Your task to perform on an android device: turn off smart reply in the gmail app Image 0: 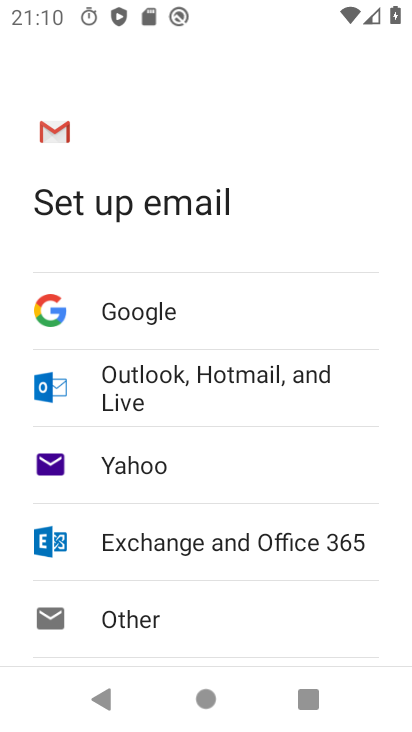
Step 0: press home button
Your task to perform on an android device: turn off smart reply in the gmail app Image 1: 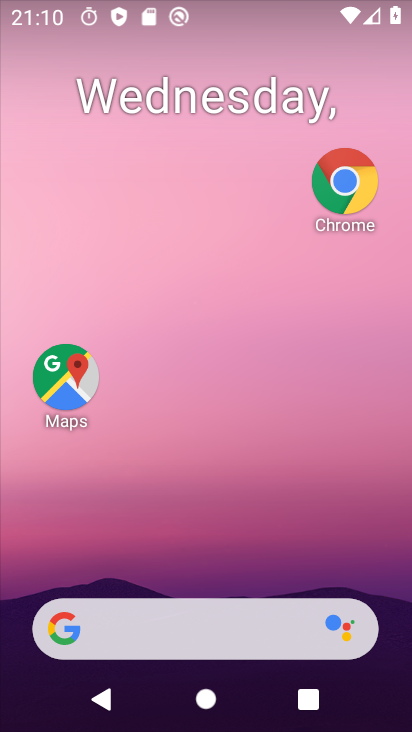
Step 1: drag from (236, 668) to (277, 312)
Your task to perform on an android device: turn off smart reply in the gmail app Image 2: 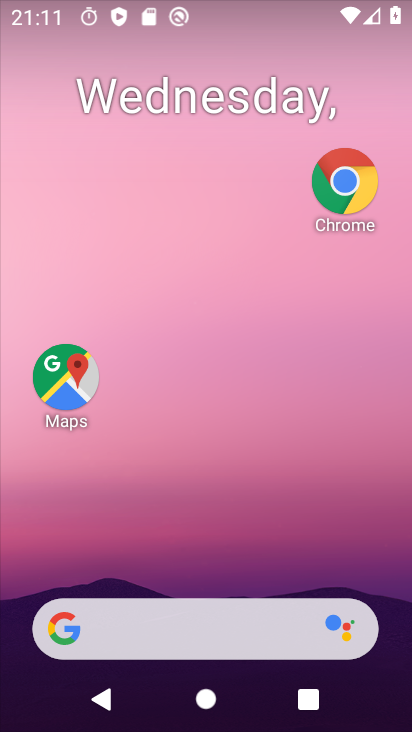
Step 2: drag from (177, 671) to (324, 106)
Your task to perform on an android device: turn off smart reply in the gmail app Image 3: 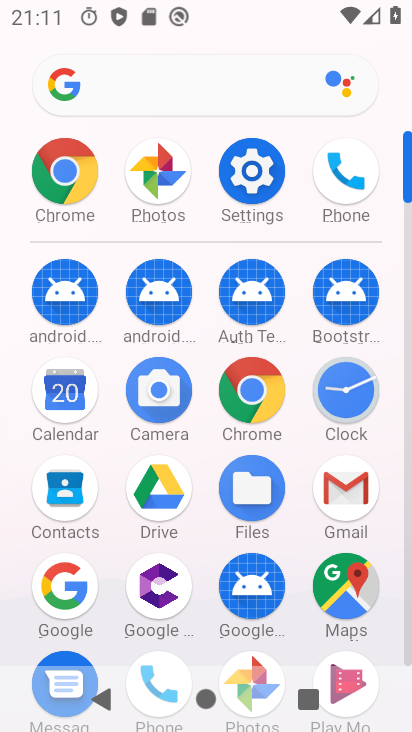
Step 3: click (324, 473)
Your task to perform on an android device: turn off smart reply in the gmail app Image 4: 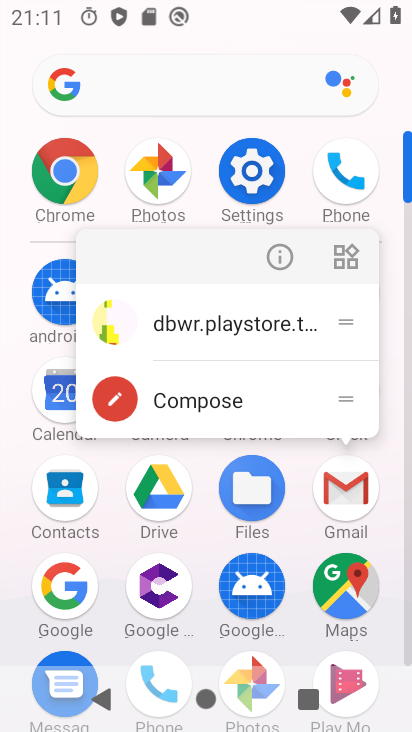
Step 4: click (328, 482)
Your task to perform on an android device: turn off smart reply in the gmail app Image 5: 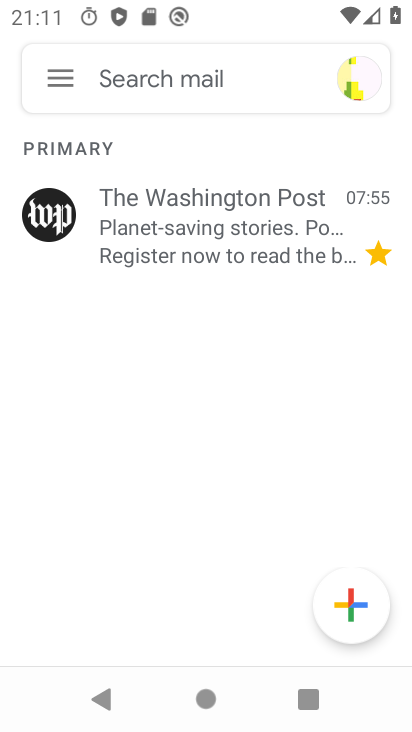
Step 5: click (44, 77)
Your task to perform on an android device: turn off smart reply in the gmail app Image 6: 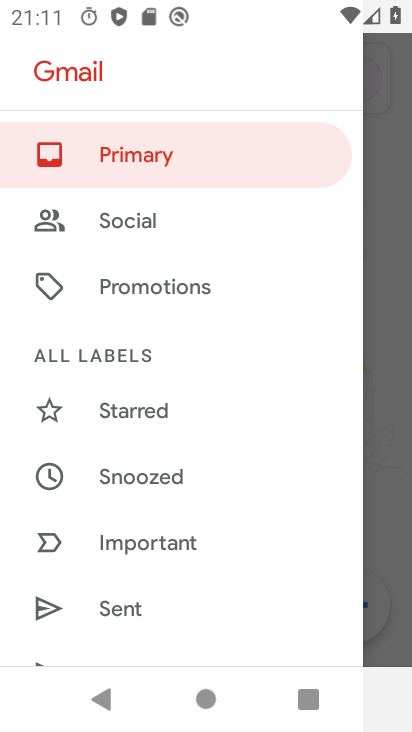
Step 6: drag from (165, 625) to (197, 297)
Your task to perform on an android device: turn off smart reply in the gmail app Image 7: 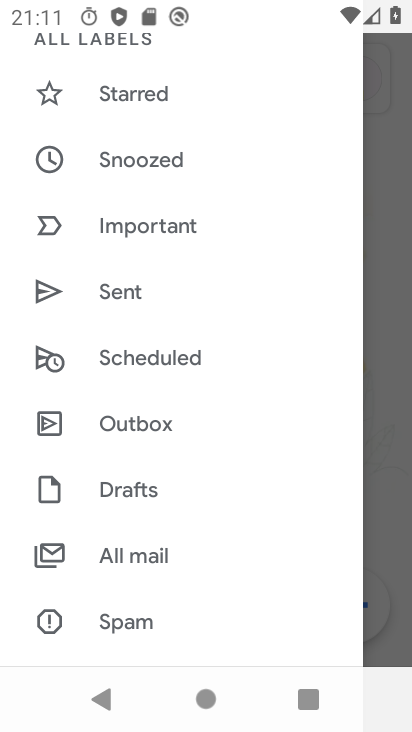
Step 7: drag from (128, 545) to (155, 349)
Your task to perform on an android device: turn off smart reply in the gmail app Image 8: 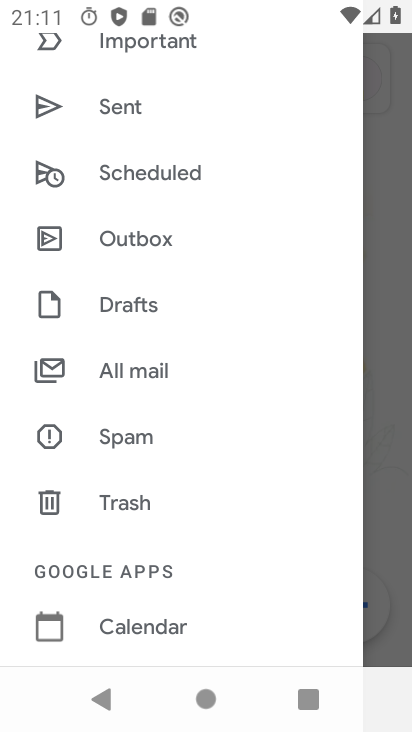
Step 8: drag from (164, 515) to (199, 367)
Your task to perform on an android device: turn off smart reply in the gmail app Image 9: 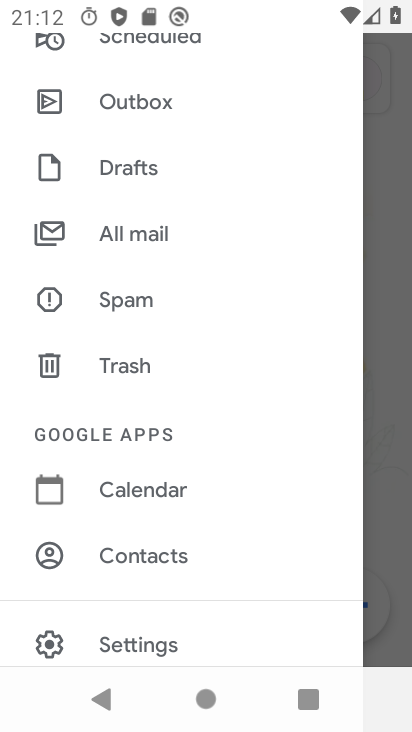
Step 9: click (124, 632)
Your task to perform on an android device: turn off smart reply in the gmail app Image 10: 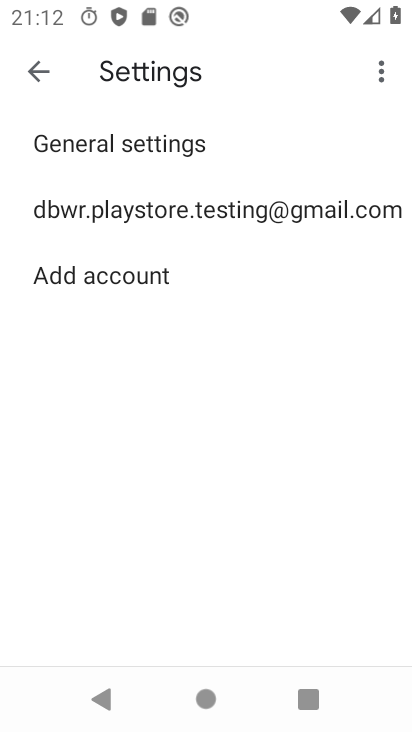
Step 10: click (170, 221)
Your task to perform on an android device: turn off smart reply in the gmail app Image 11: 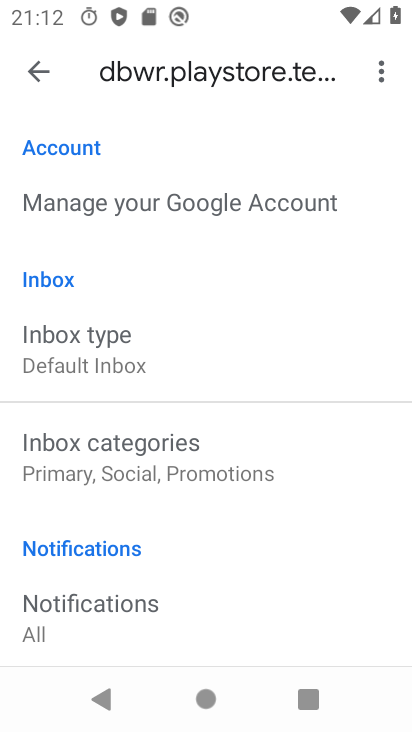
Step 11: drag from (126, 578) to (201, 363)
Your task to perform on an android device: turn off smart reply in the gmail app Image 12: 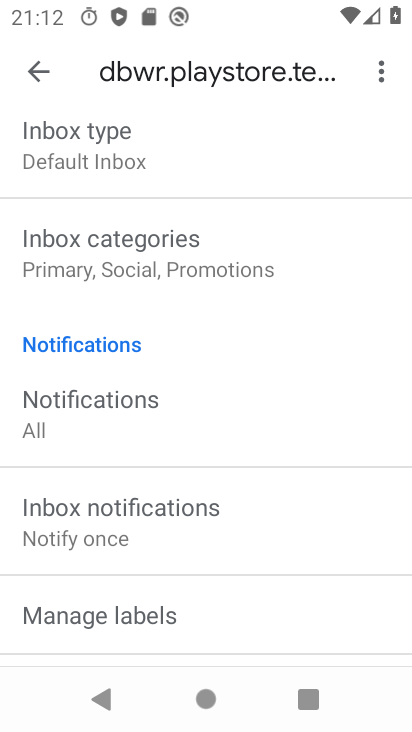
Step 12: drag from (178, 569) to (271, 175)
Your task to perform on an android device: turn off smart reply in the gmail app Image 13: 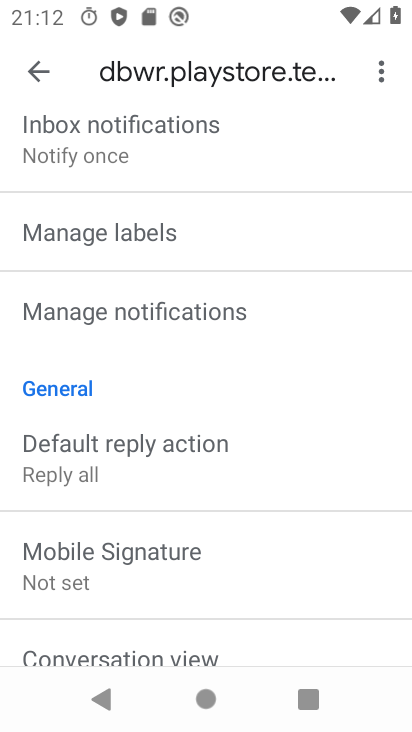
Step 13: drag from (200, 469) to (245, 153)
Your task to perform on an android device: turn off smart reply in the gmail app Image 14: 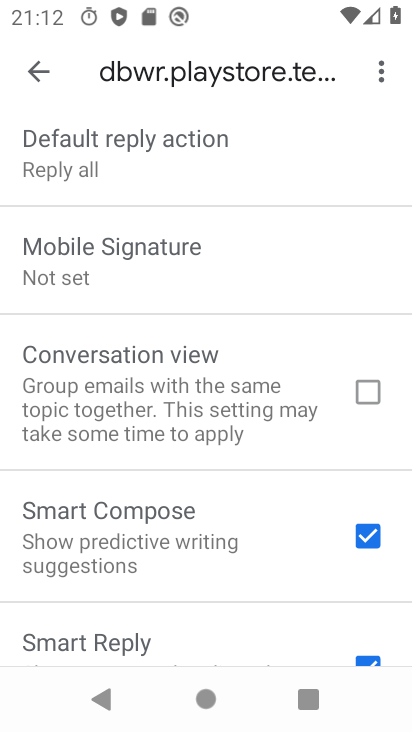
Step 14: drag from (192, 552) to (241, 387)
Your task to perform on an android device: turn off smart reply in the gmail app Image 15: 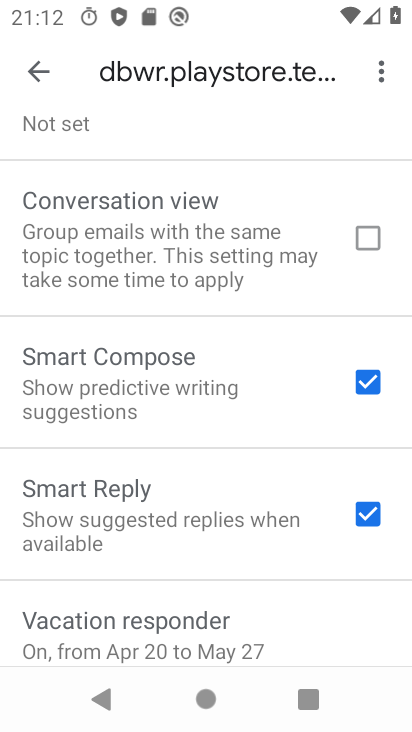
Step 15: click (364, 515)
Your task to perform on an android device: turn off smart reply in the gmail app Image 16: 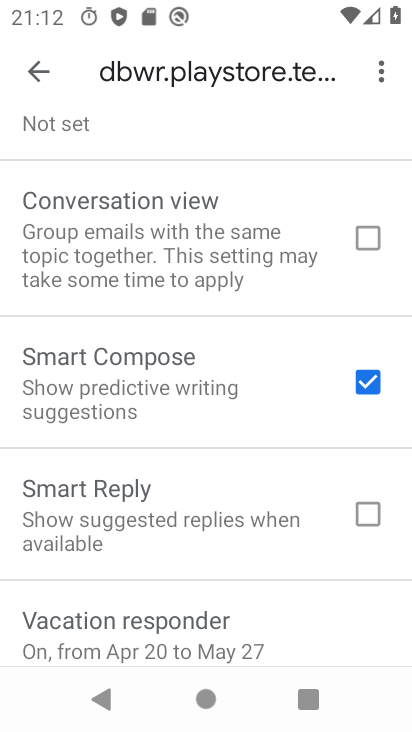
Step 16: task complete